Your task to perform on an android device: clear history in the chrome app Image 0: 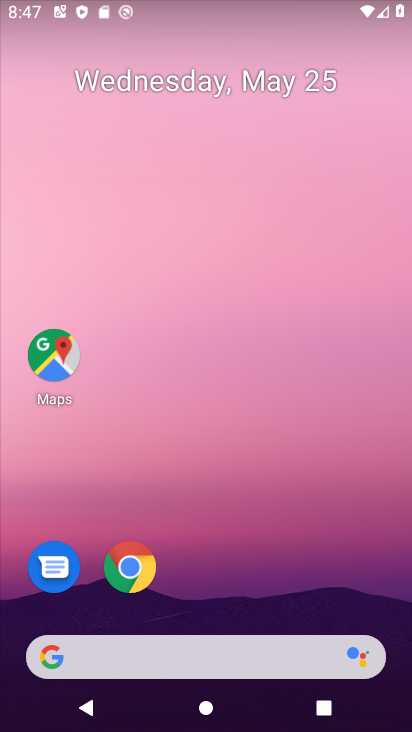
Step 0: click (153, 577)
Your task to perform on an android device: clear history in the chrome app Image 1: 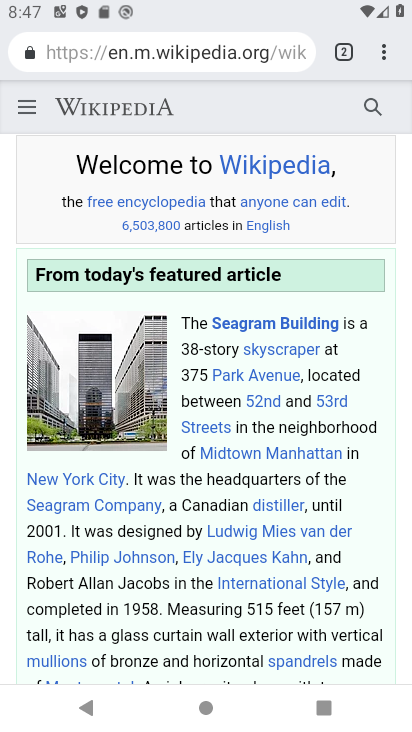
Step 1: click (390, 49)
Your task to perform on an android device: clear history in the chrome app Image 2: 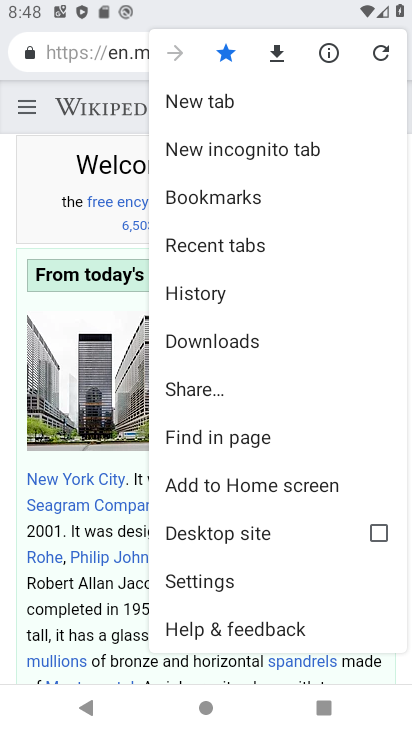
Step 2: click (215, 289)
Your task to perform on an android device: clear history in the chrome app Image 3: 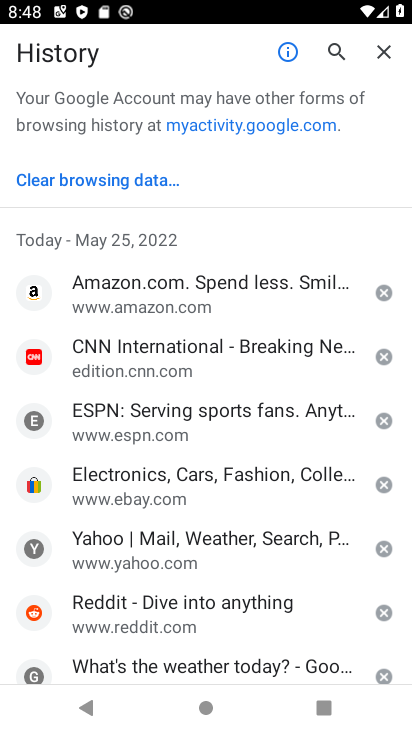
Step 3: click (113, 175)
Your task to perform on an android device: clear history in the chrome app Image 4: 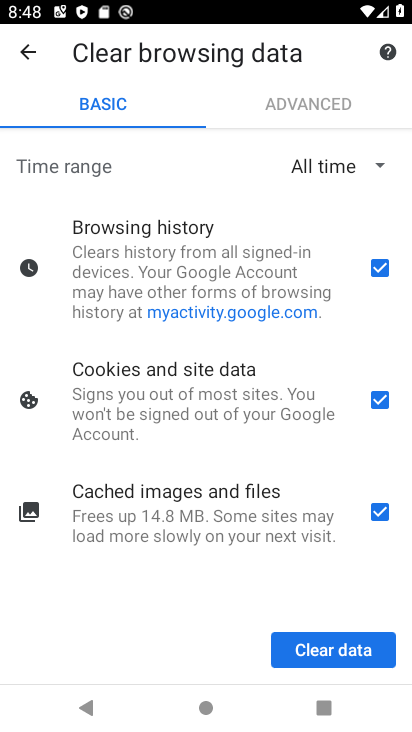
Step 4: click (391, 400)
Your task to perform on an android device: clear history in the chrome app Image 5: 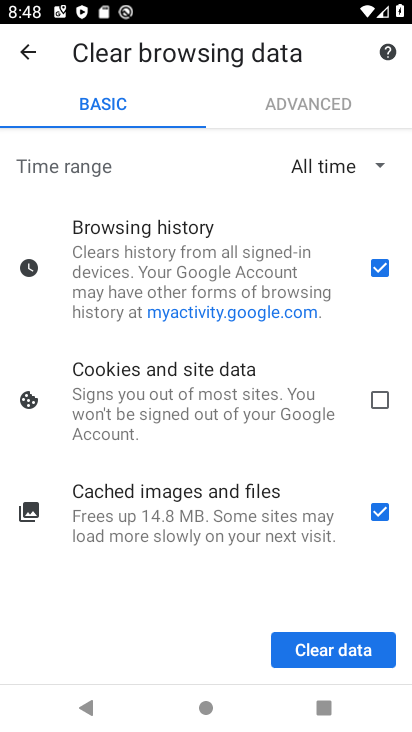
Step 5: click (386, 514)
Your task to perform on an android device: clear history in the chrome app Image 6: 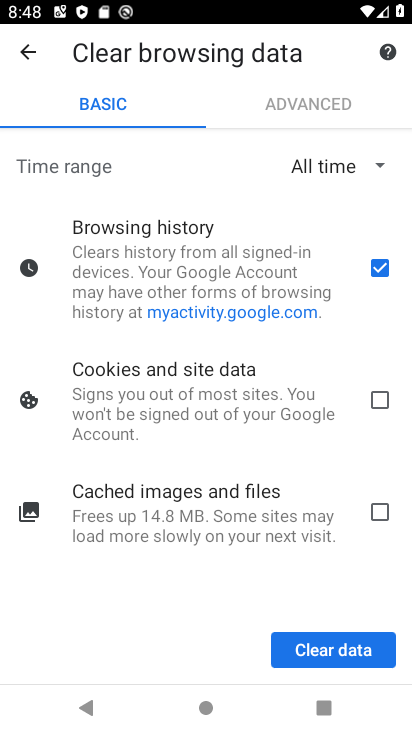
Step 6: click (345, 656)
Your task to perform on an android device: clear history in the chrome app Image 7: 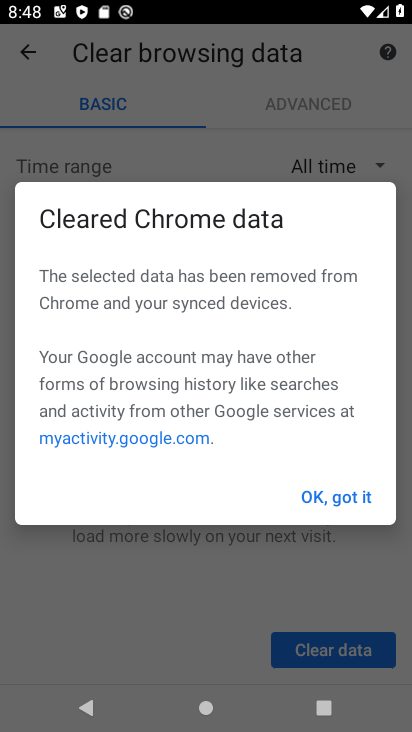
Step 7: click (356, 484)
Your task to perform on an android device: clear history in the chrome app Image 8: 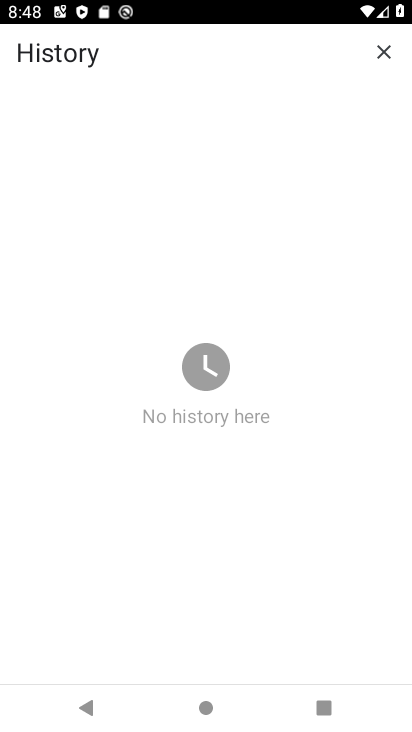
Step 8: task complete